Your task to perform on an android device: allow notifications from all sites in the chrome app Image 0: 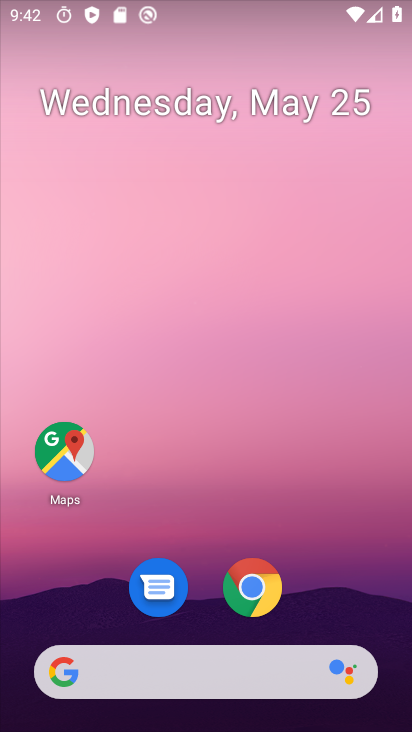
Step 0: drag from (198, 601) to (195, 129)
Your task to perform on an android device: allow notifications from all sites in the chrome app Image 1: 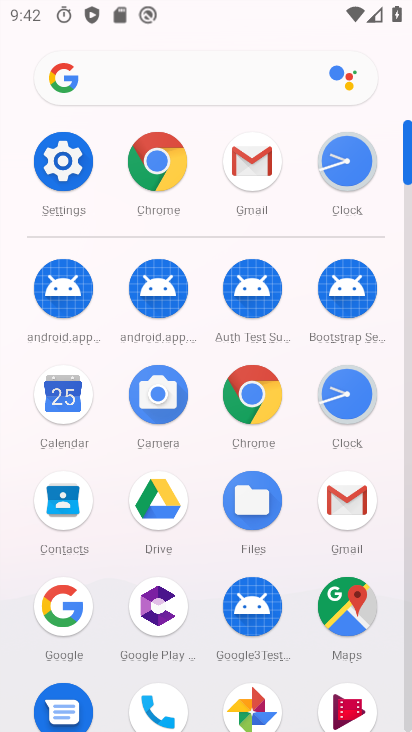
Step 1: click (265, 401)
Your task to perform on an android device: allow notifications from all sites in the chrome app Image 2: 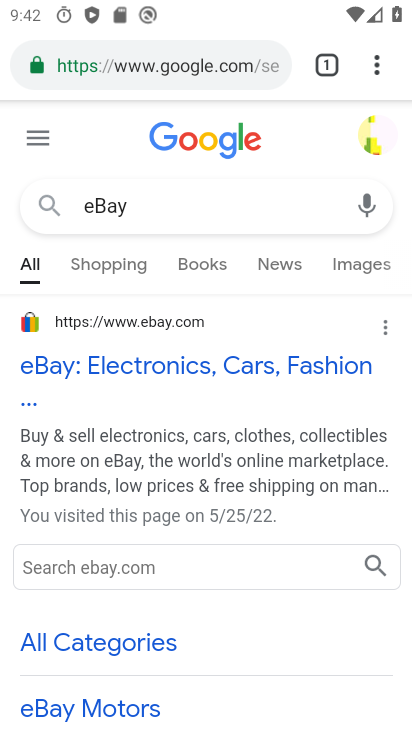
Step 2: click (386, 69)
Your task to perform on an android device: allow notifications from all sites in the chrome app Image 3: 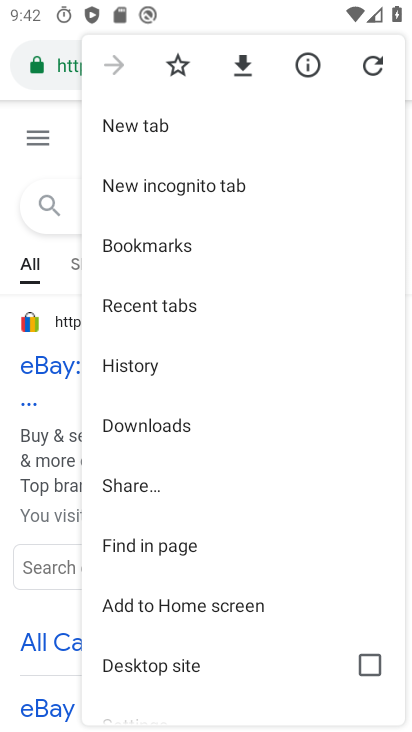
Step 3: drag from (170, 577) to (193, 360)
Your task to perform on an android device: allow notifications from all sites in the chrome app Image 4: 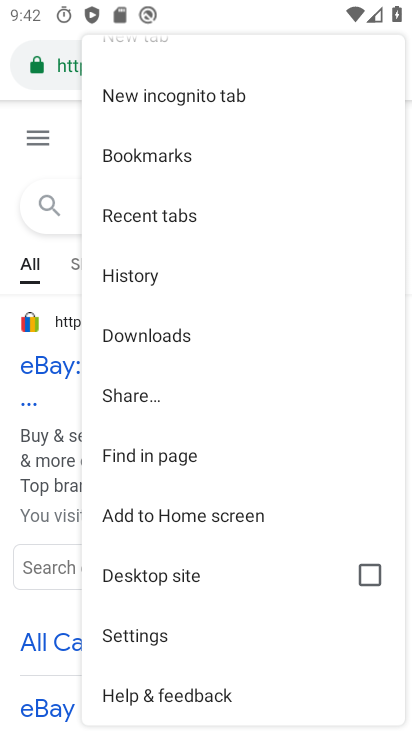
Step 4: click (144, 638)
Your task to perform on an android device: allow notifications from all sites in the chrome app Image 5: 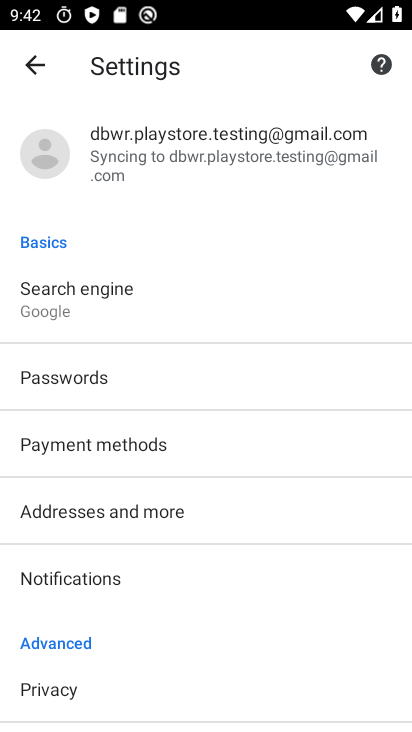
Step 5: click (96, 590)
Your task to perform on an android device: allow notifications from all sites in the chrome app Image 6: 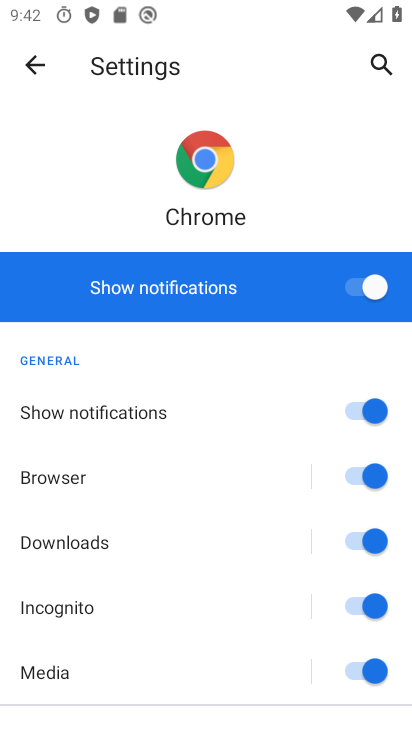
Step 6: task complete